Your task to perform on an android device: Search for a new blush on Sephora Image 0: 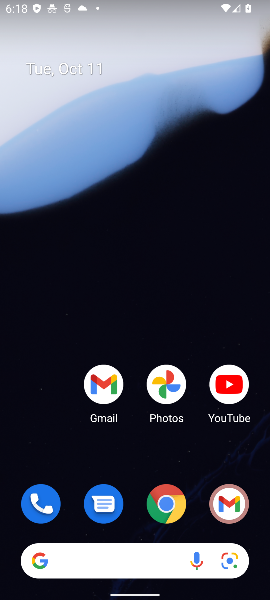
Step 0: click (105, 557)
Your task to perform on an android device: Search for a new blush on Sephora Image 1: 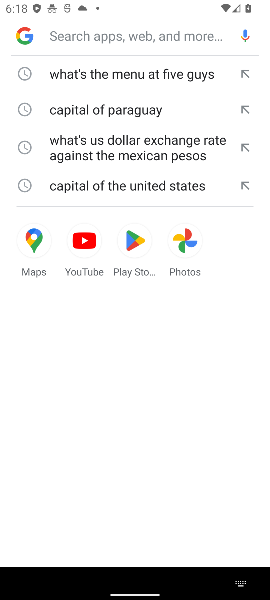
Step 1: type "new blush on Sephora"
Your task to perform on an android device: Search for a new blush on Sephora Image 2: 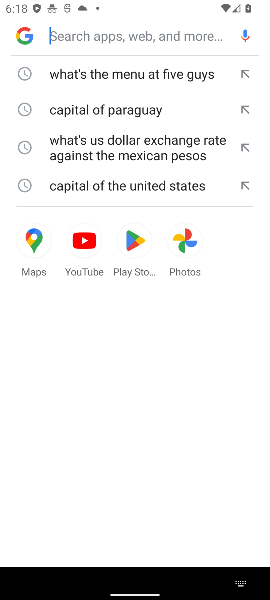
Step 2: click (109, 425)
Your task to perform on an android device: Search for a new blush on Sephora Image 3: 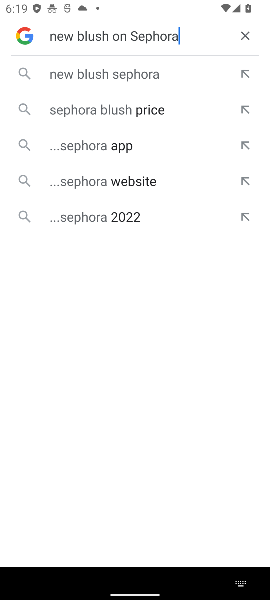
Step 3: click (100, 69)
Your task to perform on an android device: Search for a new blush on Sephora Image 4: 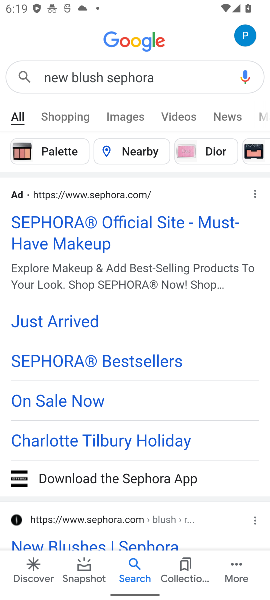
Step 4: task complete